Your task to perform on an android device: clear all cookies in the chrome app Image 0: 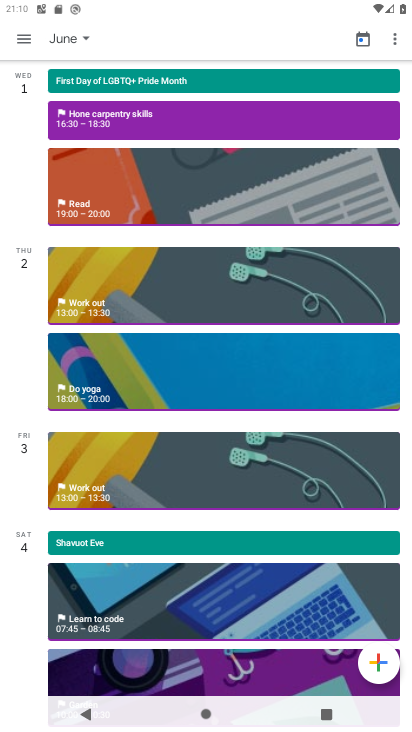
Step 0: press back button
Your task to perform on an android device: clear all cookies in the chrome app Image 1: 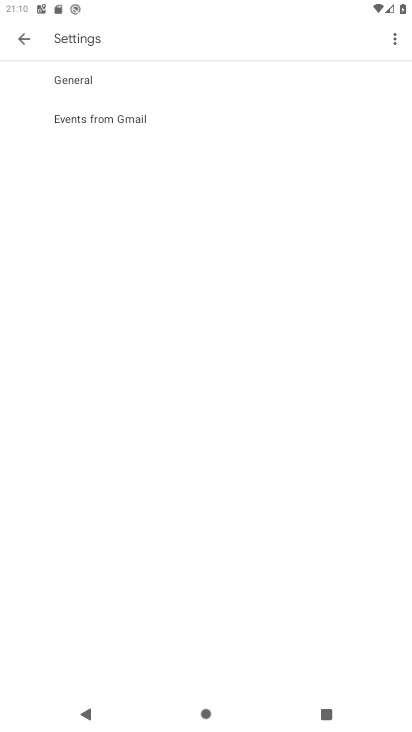
Step 1: press back button
Your task to perform on an android device: clear all cookies in the chrome app Image 2: 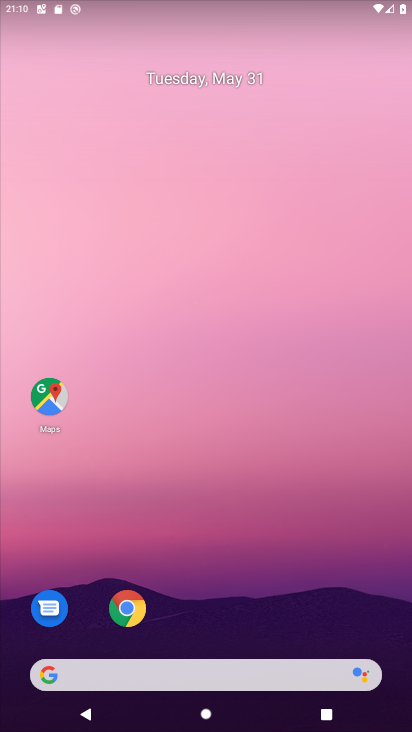
Step 2: click (128, 612)
Your task to perform on an android device: clear all cookies in the chrome app Image 3: 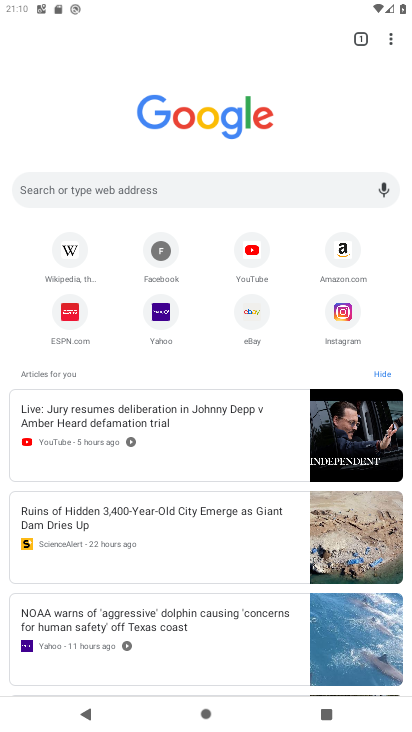
Step 3: click (391, 38)
Your task to perform on an android device: clear all cookies in the chrome app Image 4: 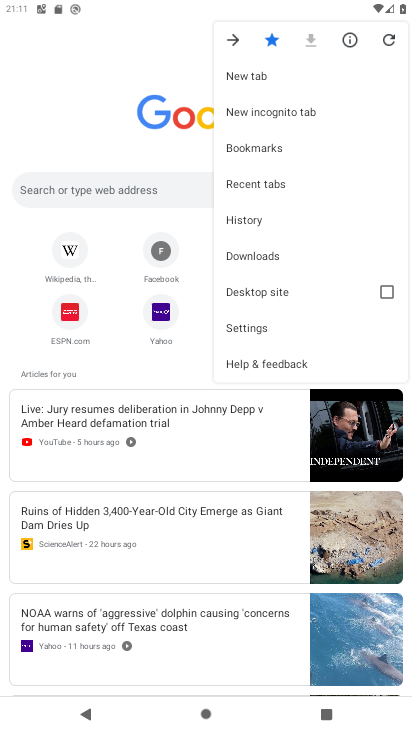
Step 4: click (256, 326)
Your task to perform on an android device: clear all cookies in the chrome app Image 5: 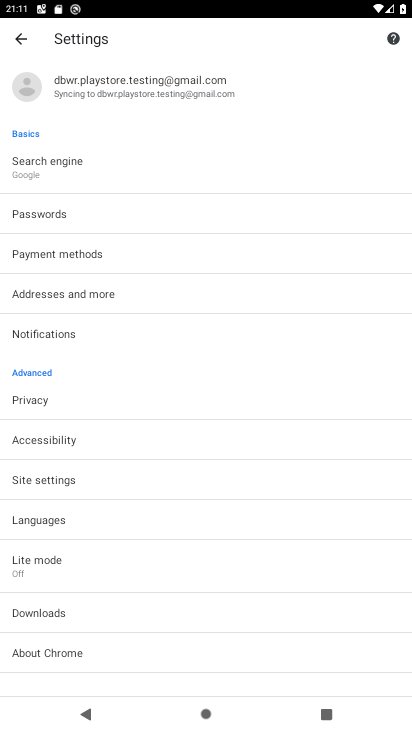
Step 5: click (40, 403)
Your task to perform on an android device: clear all cookies in the chrome app Image 6: 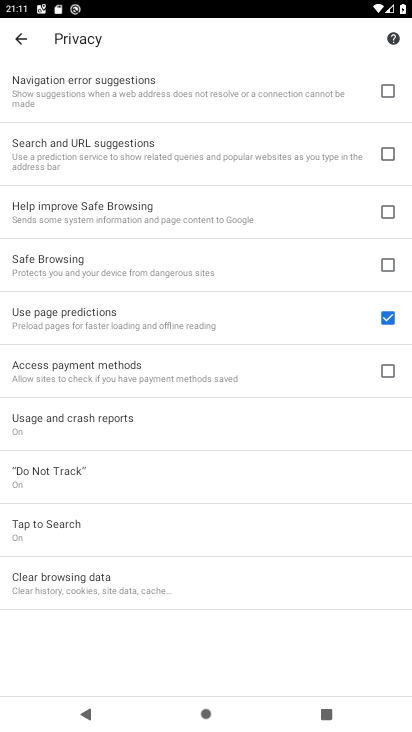
Step 6: click (76, 578)
Your task to perform on an android device: clear all cookies in the chrome app Image 7: 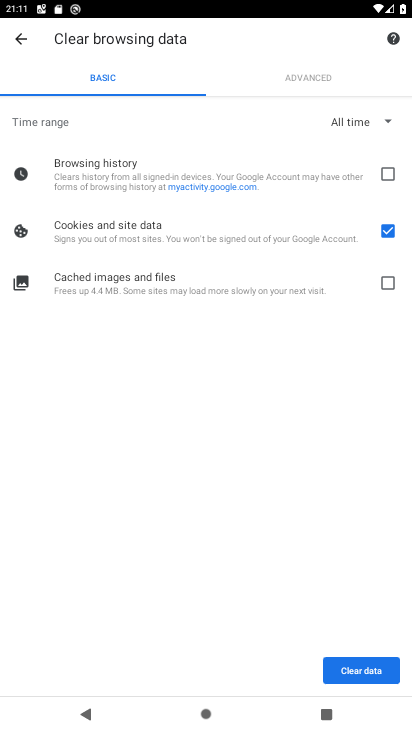
Step 7: click (359, 664)
Your task to perform on an android device: clear all cookies in the chrome app Image 8: 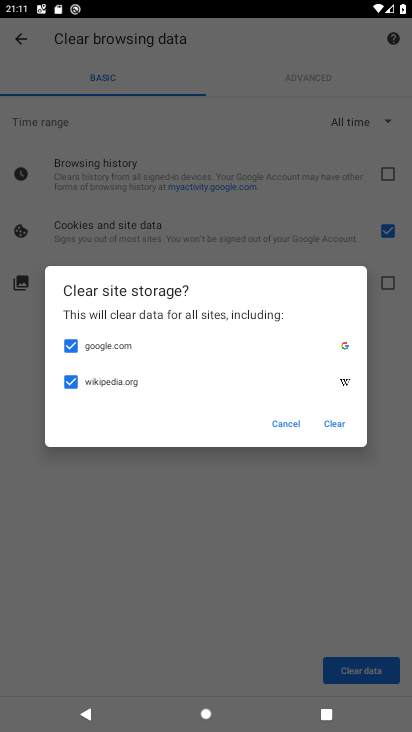
Step 8: click (345, 428)
Your task to perform on an android device: clear all cookies in the chrome app Image 9: 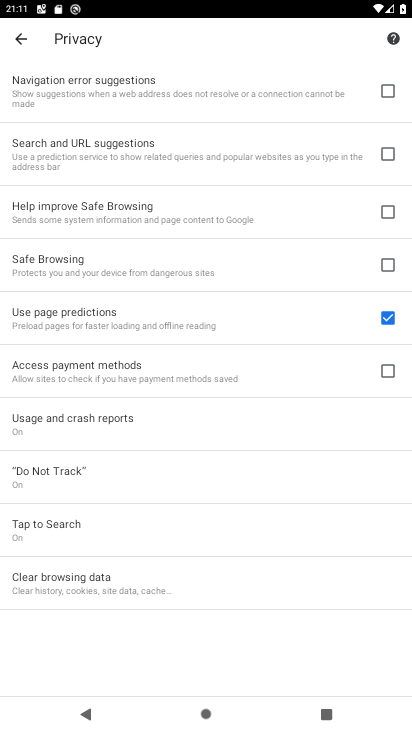
Step 9: task complete